Your task to perform on an android device: turn pop-ups on in chrome Image 0: 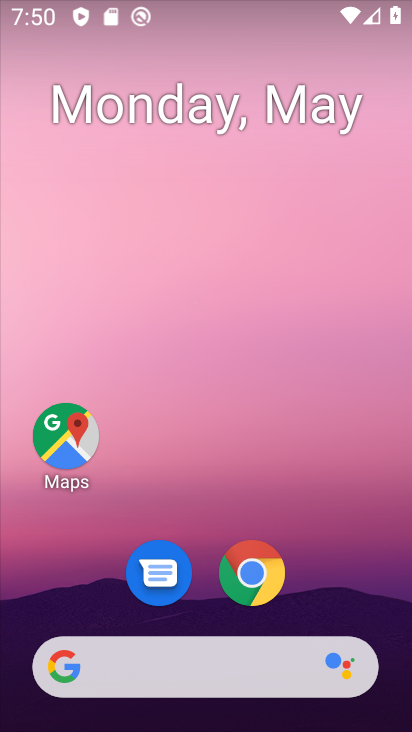
Step 0: click (286, 574)
Your task to perform on an android device: turn pop-ups on in chrome Image 1: 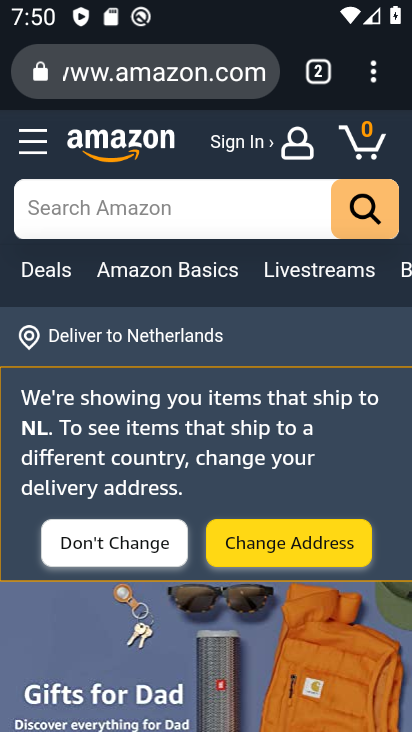
Step 1: click (373, 95)
Your task to perform on an android device: turn pop-ups on in chrome Image 2: 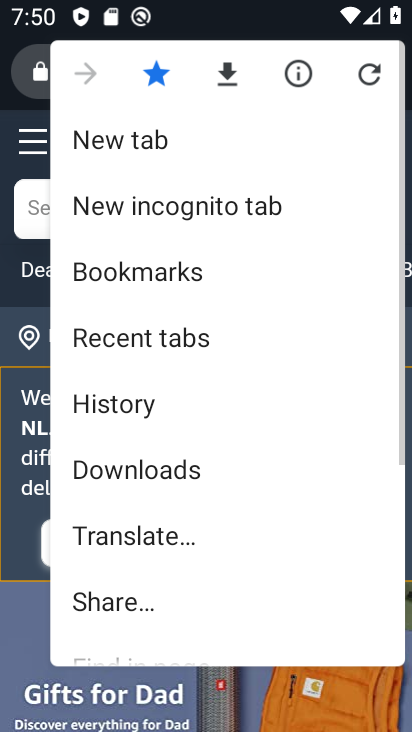
Step 2: drag from (217, 521) to (251, 304)
Your task to perform on an android device: turn pop-ups on in chrome Image 3: 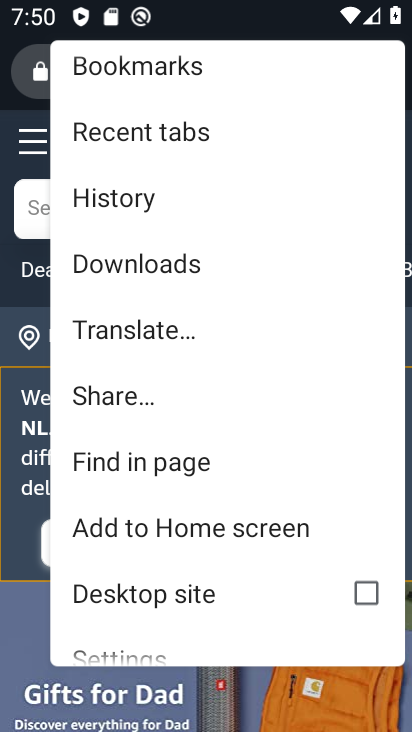
Step 3: click (136, 652)
Your task to perform on an android device: turn pop-ups on in chrome Image 4: 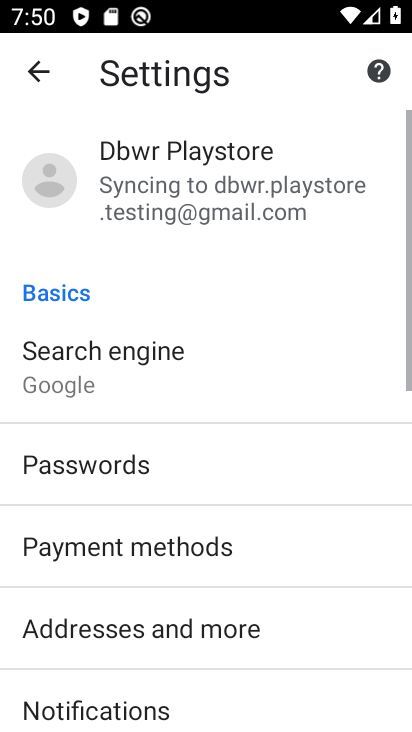
Step 4: drag from (134, 547) to (203, 326)
Your task to perform on an android device: turn pop-ups on in chrome Image 5: 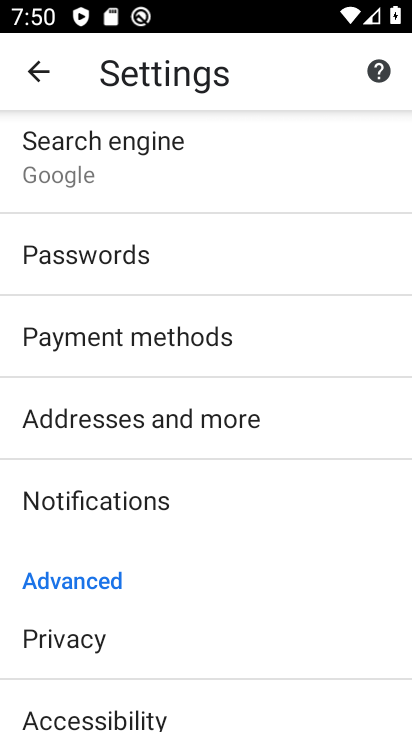
Step 5: drag from (150, 585) to (180, 467)
Your task to perform on an android device: turn pop-ups on in chrome Image 6: 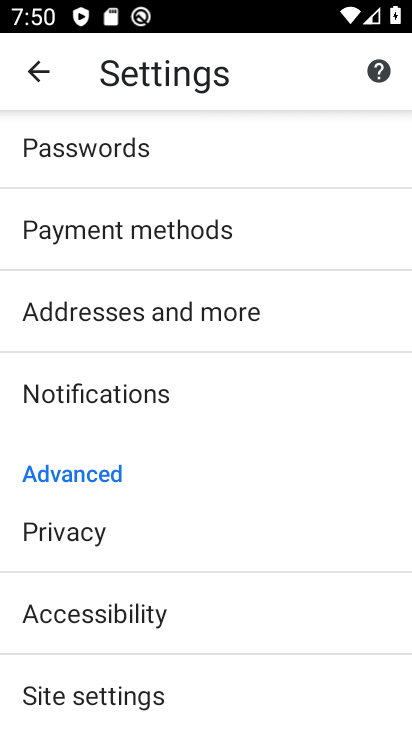
Step 6: click (116, 688)
Your task to perform on an android device: turn pop-ups on in chrome Image 7: 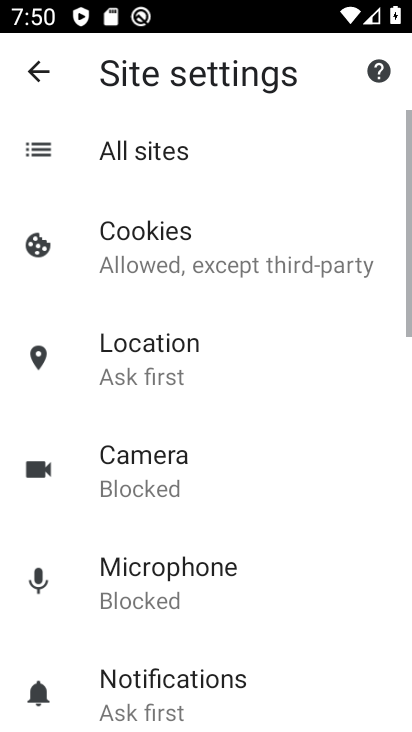
Step 7: drag from (180, 664) to (213, 415)
Your task to perform on an android device: turn pop-ups on in chrome Image 8: 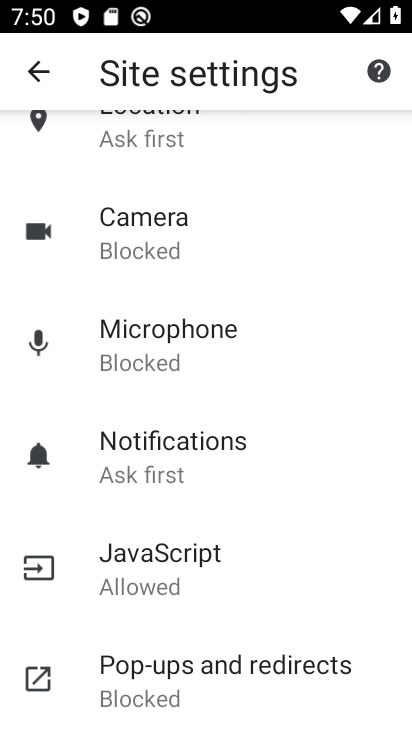
Step 8: click (208, 660)
Your task to perform on an android device: turn pop-ups on in chrome Image 9: 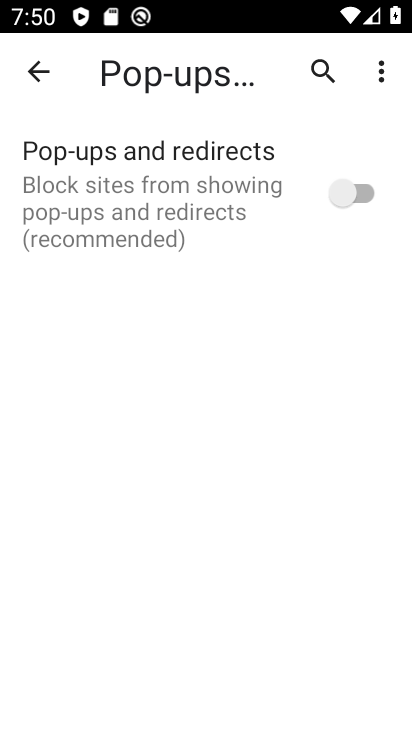
Step 9: click (349, 198)
Your task to perform on an android device: turn pop-ups on in chrome Image 10: 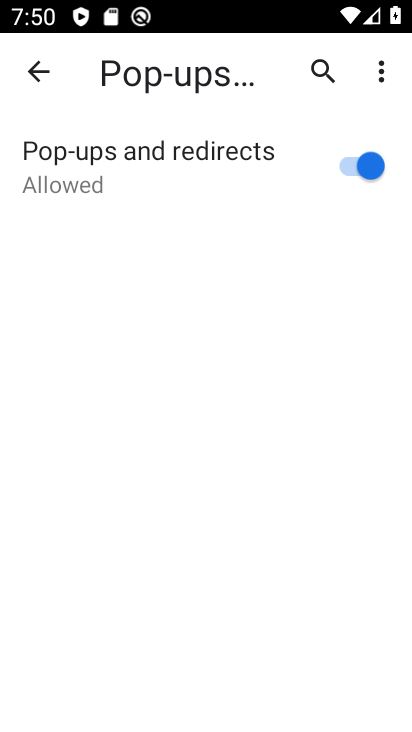
Step 10: task complete